Your task to perform on an android device: Toggle the flashlight Image 0: 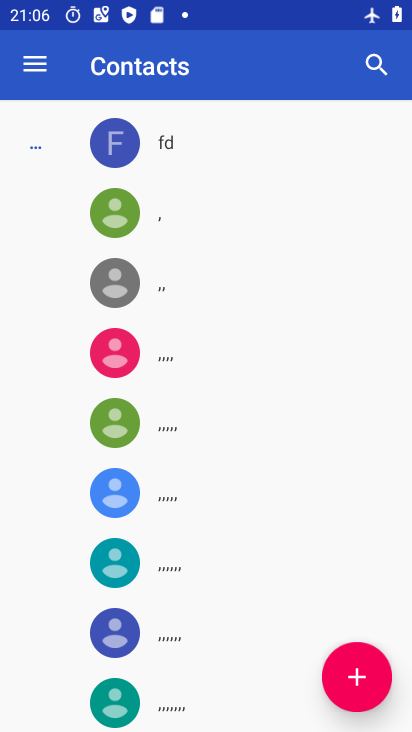
Step 0: press back button
Your task to perform on an android device: Toggle the flashlight Image 1: 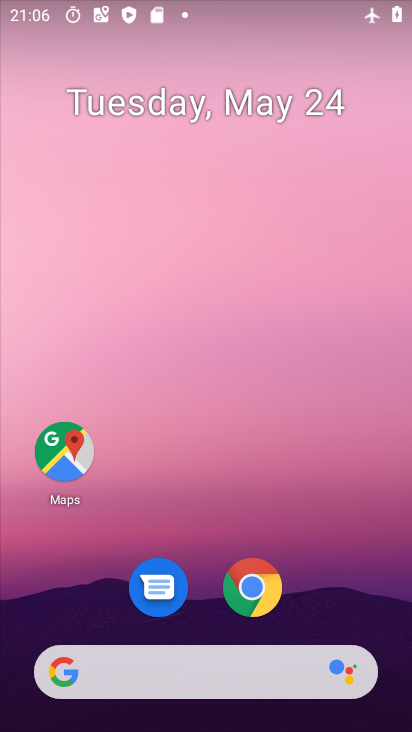
Step 1: drag from (313, 488) to (236, 0)
Your task to perform on an android device: Toggle the flashlight Image 2: 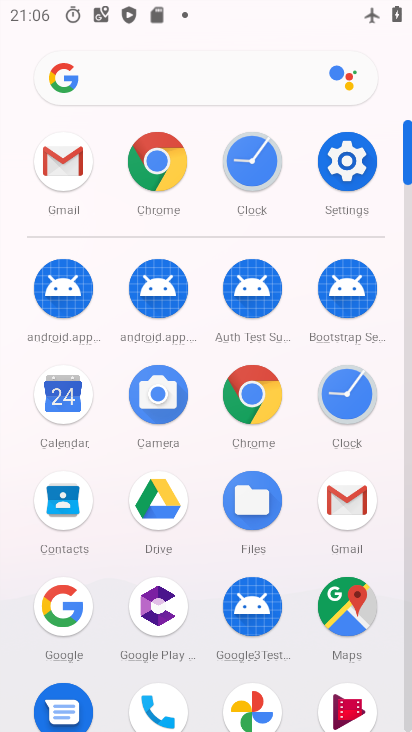
Step 2: drag from (9, 529) to (2, 273)
Your task to perform on an android device: Toggle the flashlight Image 3: 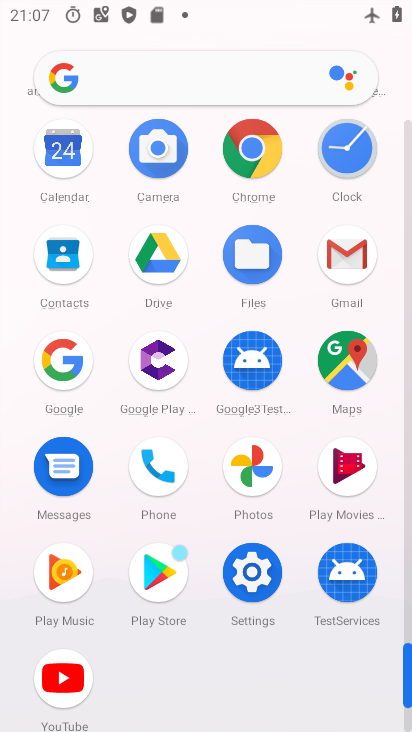
Step 3: click (250, 566)
Your task to perform on an android device: Toggle the flashlight Image 4: 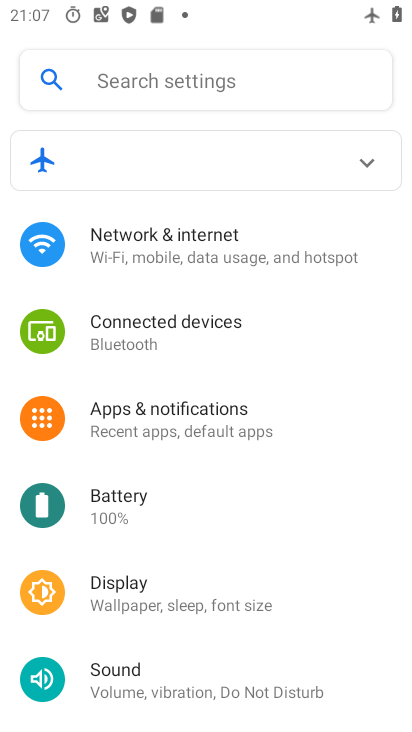
Step 4: click (201, 239)
Your task to perform on an android device: Toggle the flashlight Image 5: 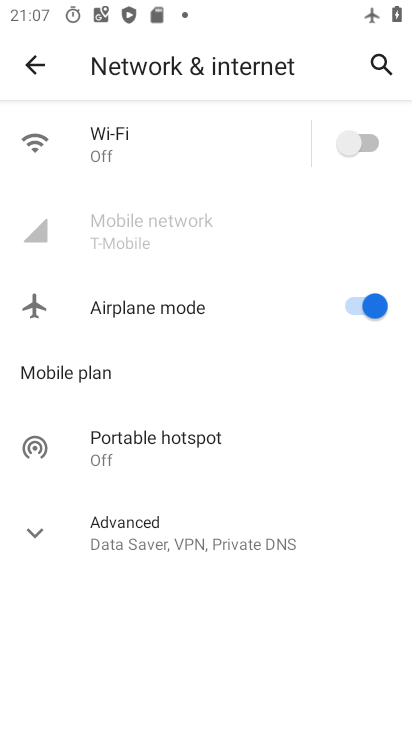
Step 5: click (39, 530)
Your task to perform on an android device: Toggle the flashlight Image 6: 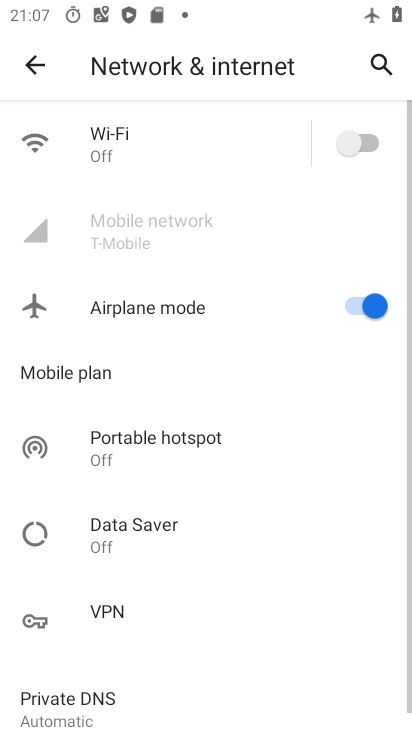
Step 6: task complete